Your task to perform on an android device: change the clock display to digital Image 0: 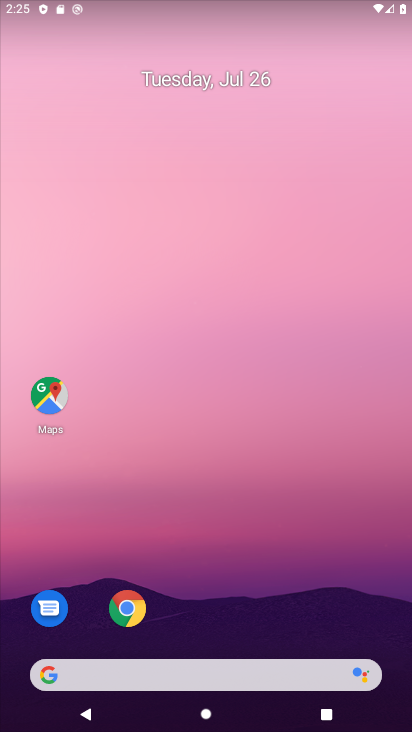
Step 0: drag from (247, 692) to (183, 189)
Your task to perform on an android device: change the clock display to digital Image 1: 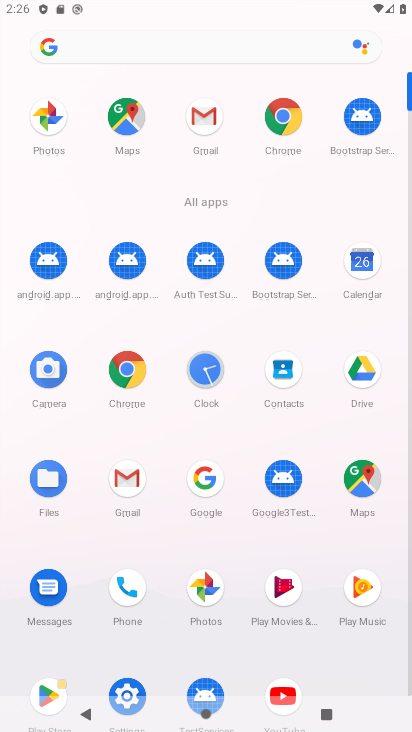
Step 1: click (206, 368)
Your task to perform on an android device: change the clock display to digital Image 2: 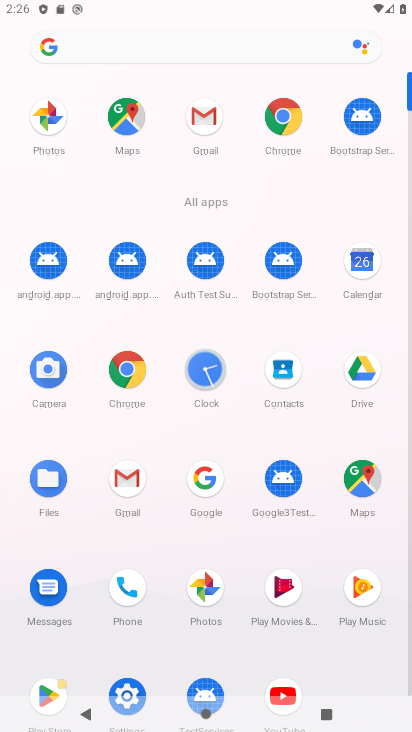
Step 2: click (211, 370)
Your task to perform on an android device: change the clock display to digital Image 3: 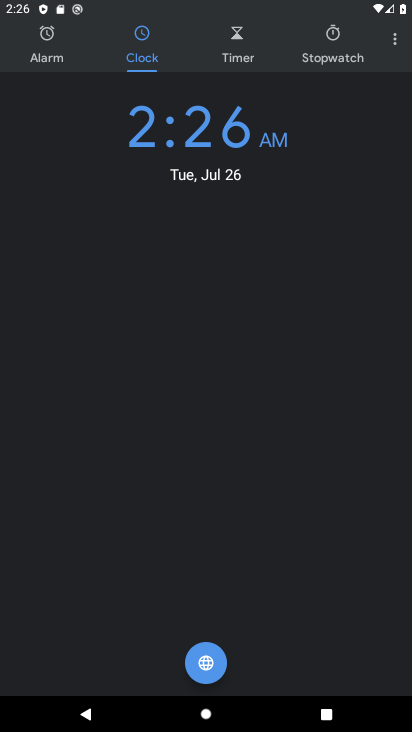
Step 3: click (396, 42)
Your task to perform on an android device: change the clock display to digital Image 4: 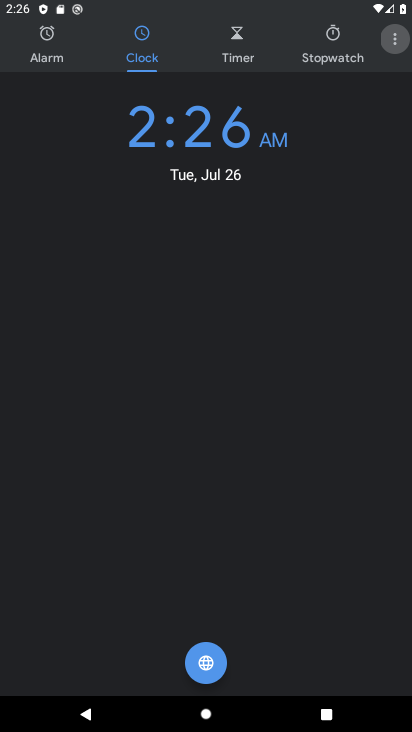
Step 4: click (396, 42)
Your task to perform on an android device: change the clock display to digital Image 5: 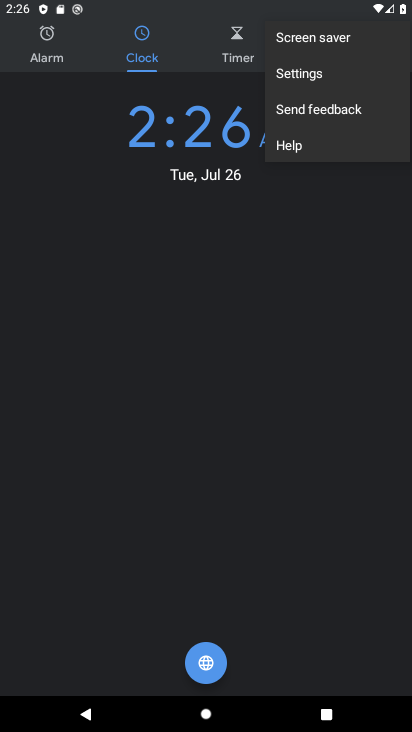
Step 5: click (396, 42)
Your task to perform on an android device: change the clock display to digital Image 6: 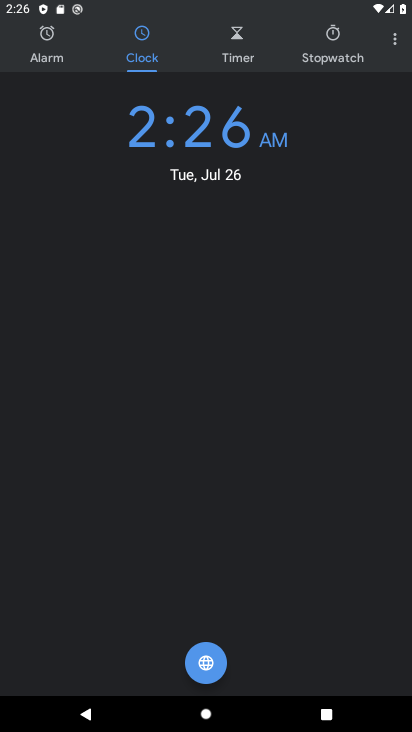
Step 6: click (394, 45)
Your task to perform on an android device: change the clock display to digital Image 7: 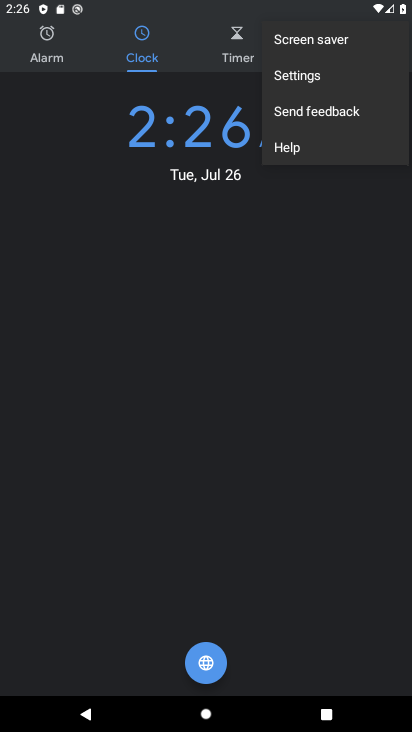
Step 7: click (293, 76)
Your task to perform on an android device: change the clock display to digital Image 8: 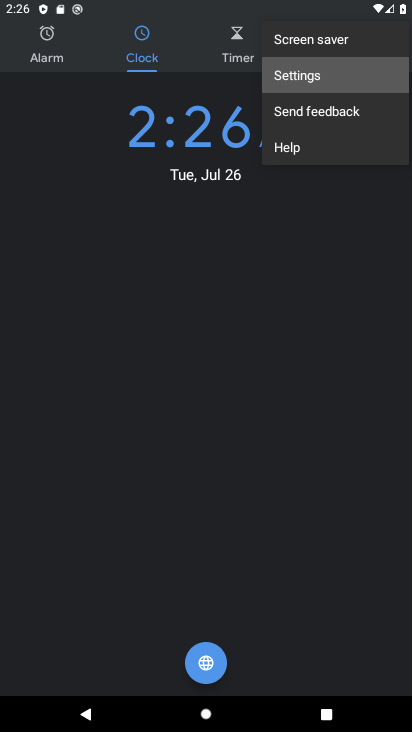
Step 8: click (294, 77)
Your task to perform on an android device: change the clock display to digital Image 9: 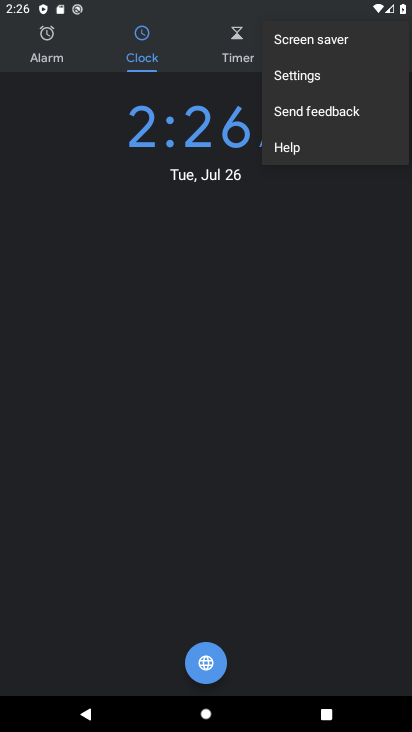
Step 9: click (294, 78)
Your task to perform on an android device: change the clock display to digital Image 10: 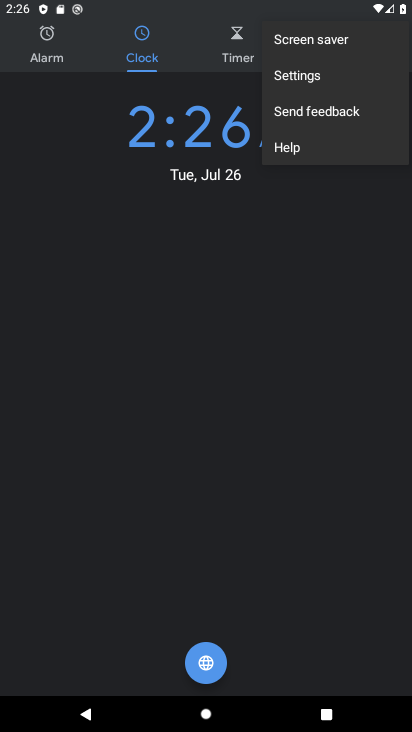
Step 10: click (295, 78)
Your task to perform on an android device: change the clock display to digital Image 11: 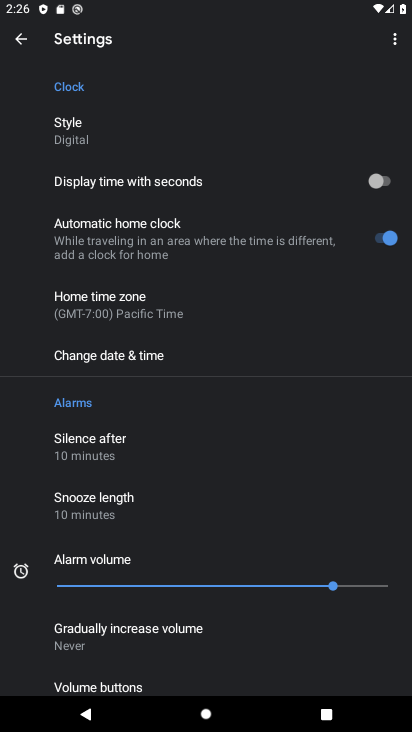
Step 11: task complete